Your task to perform on an android device: change the clock style Image 0: 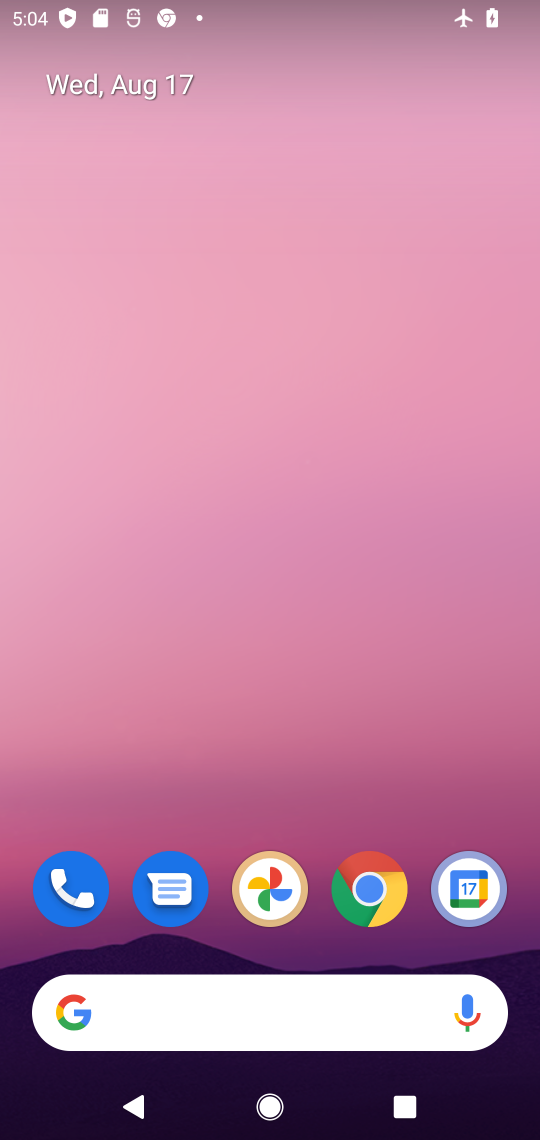
Step 0: drag from (352, 781) to (330, 158)
Your task to perform on an android device: change the clock style Image 1: 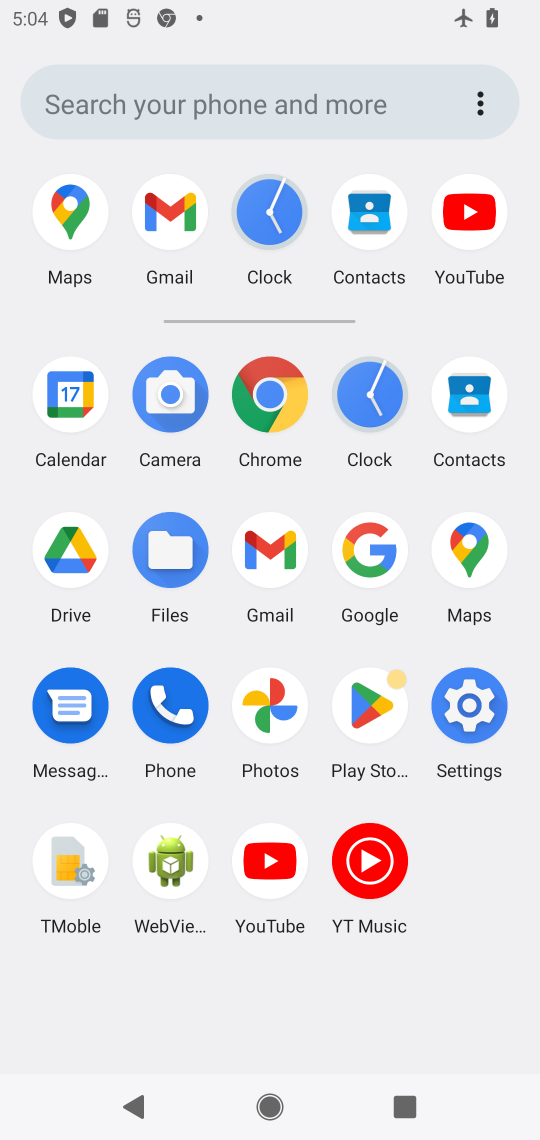
Step 1: click (266, 215)
Your task to perform on an android device: change the clock style Image 2: 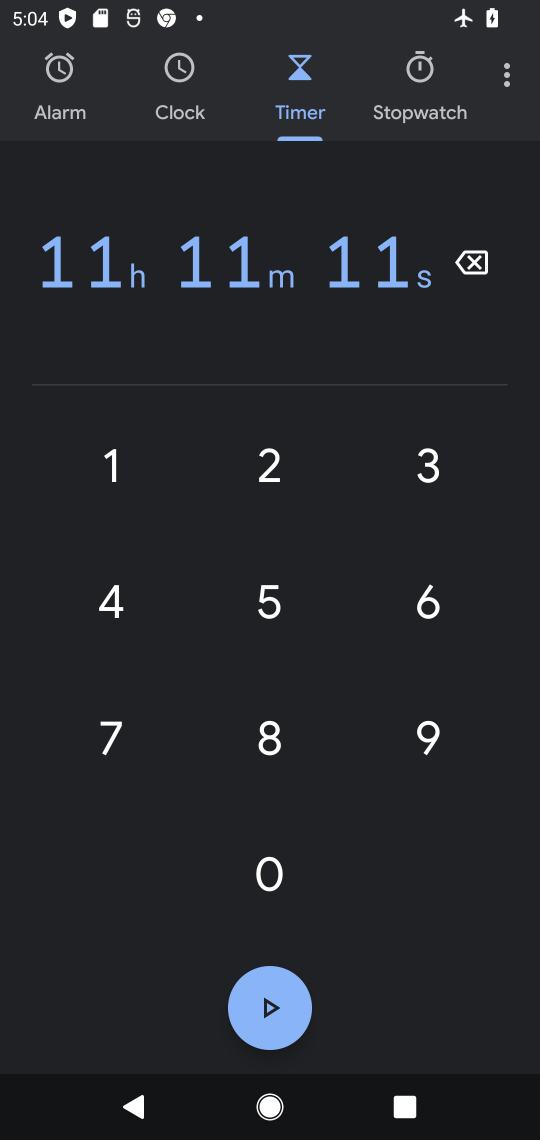
Step 2: click (494, 71)
Your task to perform on an android device: change the clock style Image 3: 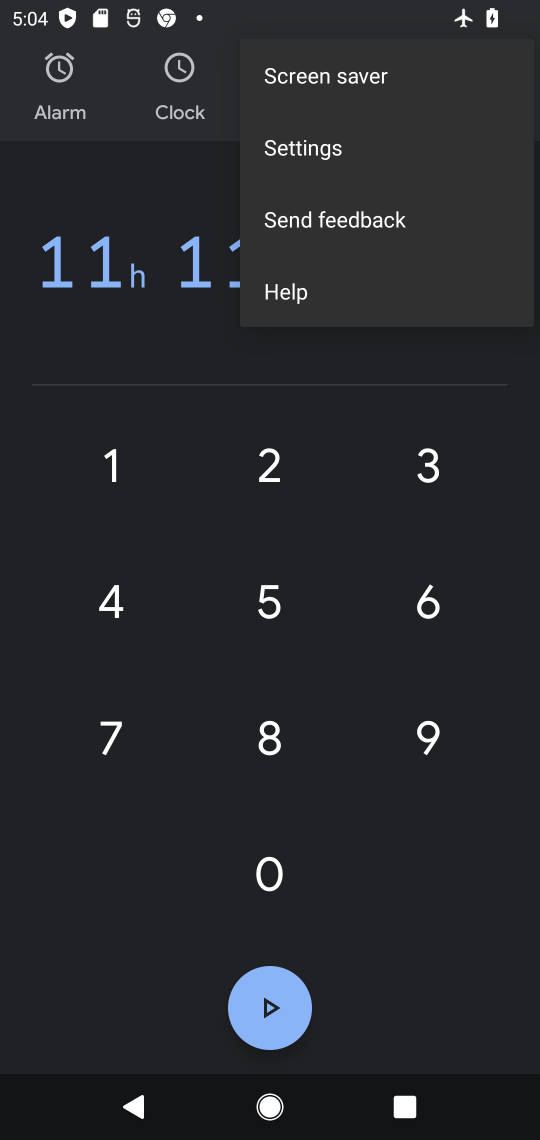
Step 3: click (312, 149)
Your task to perform on an android device: change the clock style Image 4: 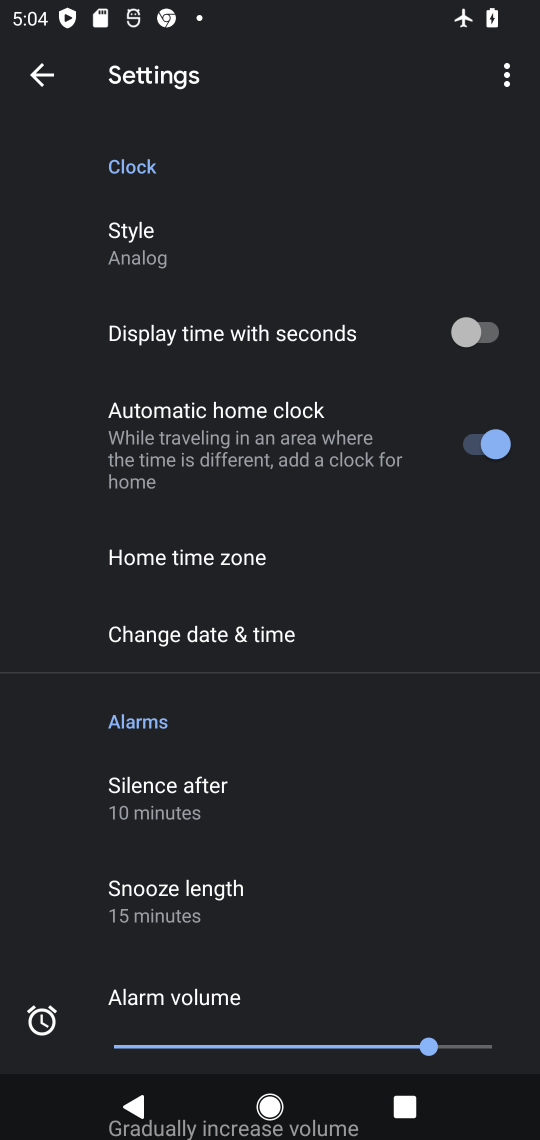
Step 4: click (138, 235)
Your task to perform on an android device: change the clock style Image 5: 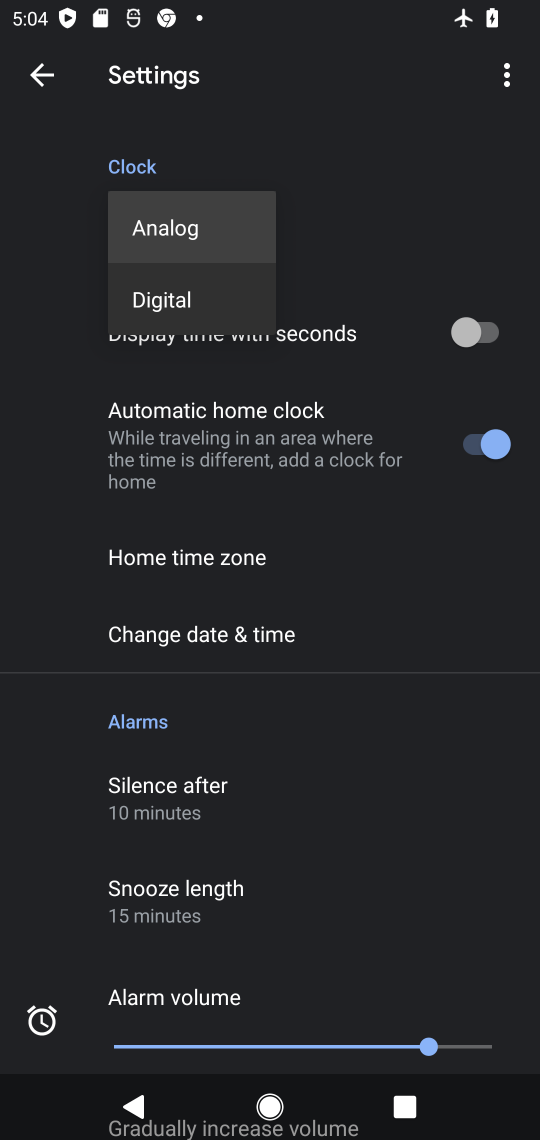
Step 5: click (172, 298)
Your task to perform on an android device: change the clock style Image 6: 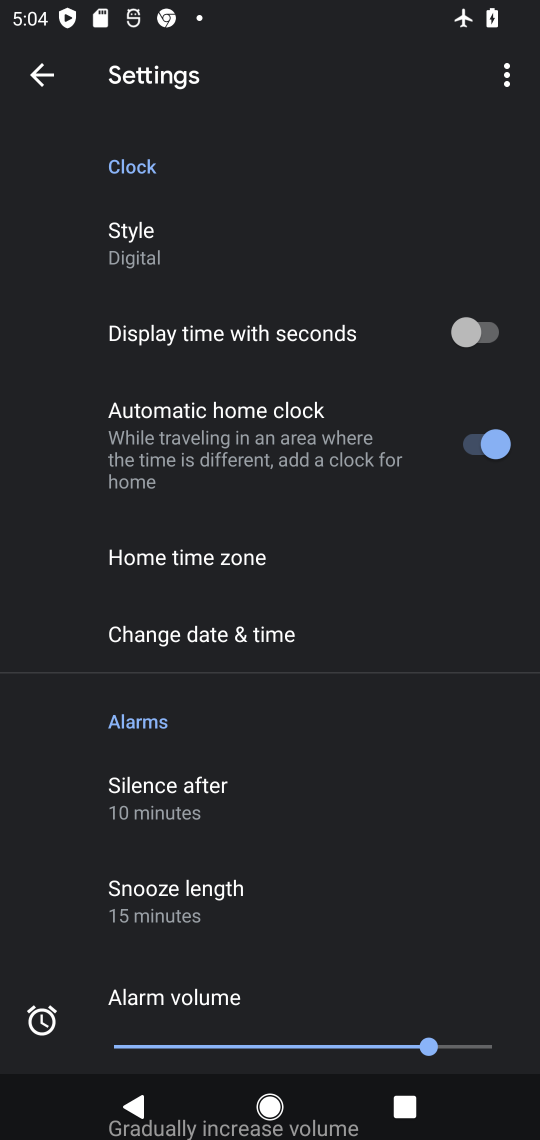
Step 6: task complete